Your task to perform on an android device: Open the stopwatch Image 0: 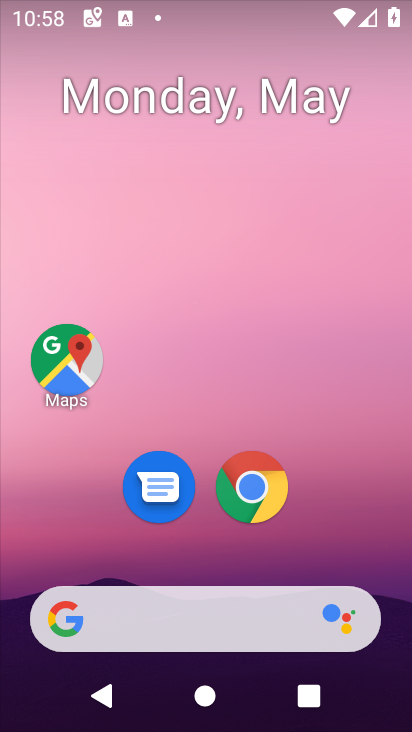
Step 0: click (323, 143)
Your task to perform on an android device: Open the stopwatch Image 1: 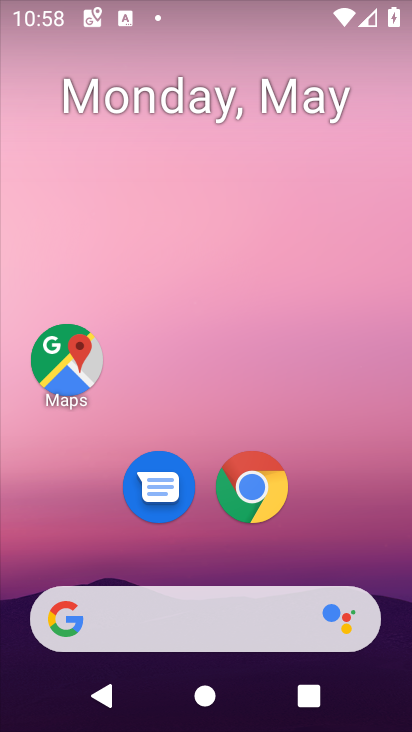
Step 1: drag from (280, 494) to (295, 91)
Your task to perform on an android device: Open the stopwatch Image 2: 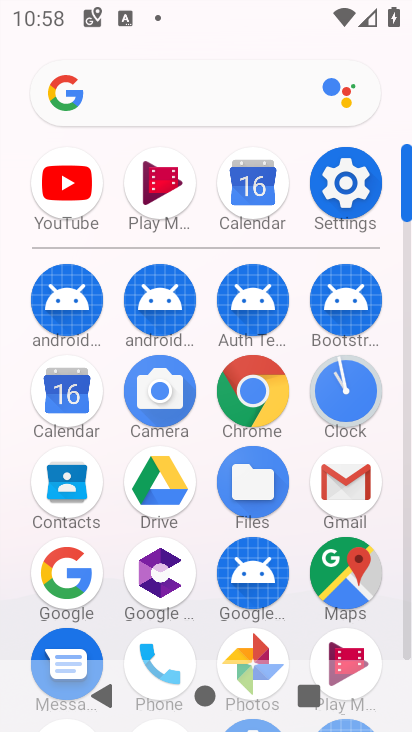
Step 2: click (351, 379)
Your task to perform on an android device: Open the stopwatch Image 3: 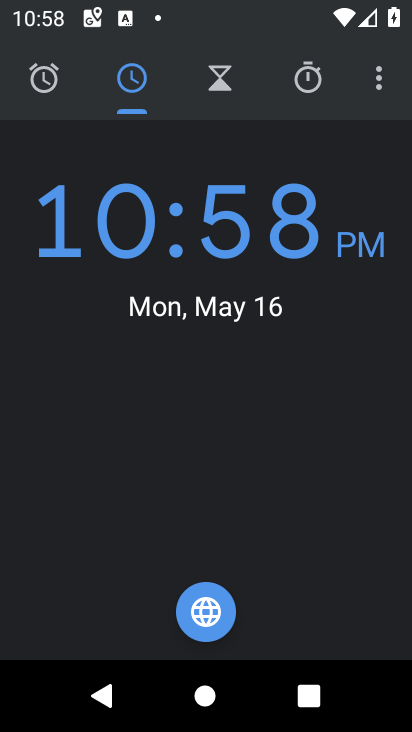
Step 3: click (318, 81)
Your task to perform on an android device: Open the stopwatch Image 4: 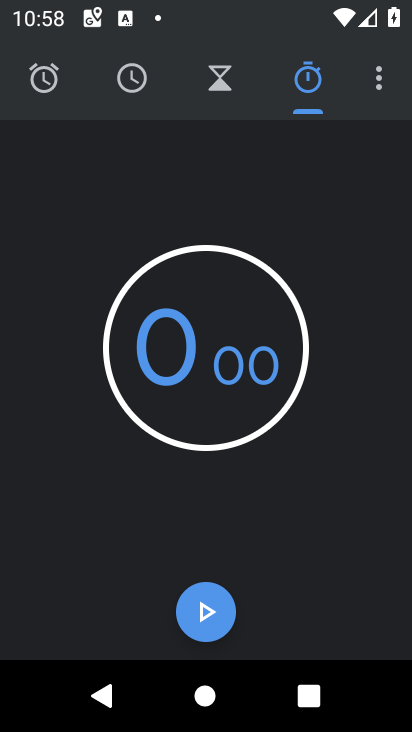
Step 4: task complete